Your task to perform on an android device: Open Chrome and go to the settings page Image 0: 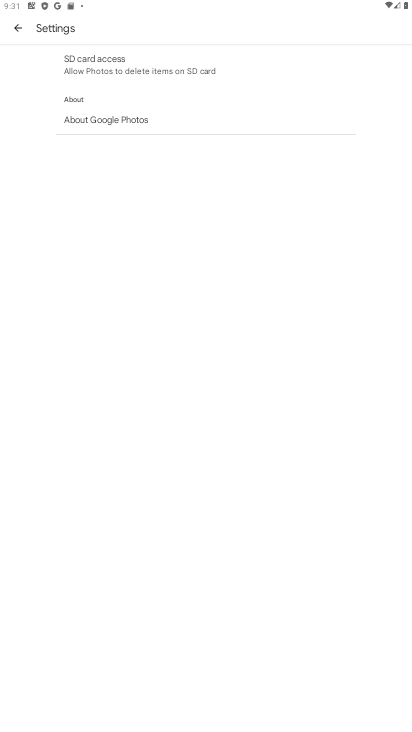
Step 0: click (81, 153)
Your task to perform on an android device: Open Chrome and go to the settings page Image 1: 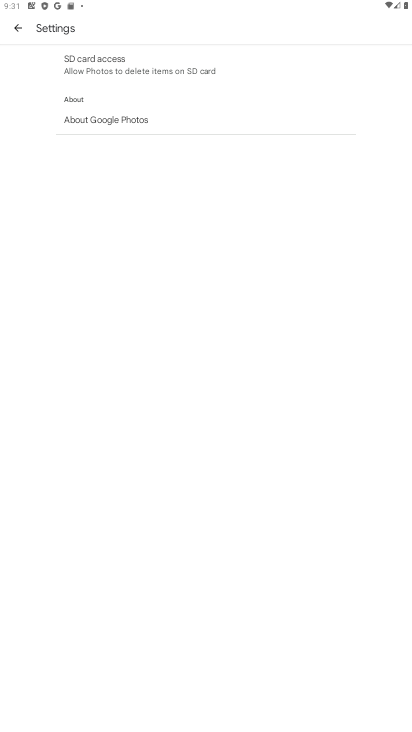
Step 1: click (81, 153)
Your task to perform on an android device: Open Chrome and go to the settings page Image 2: 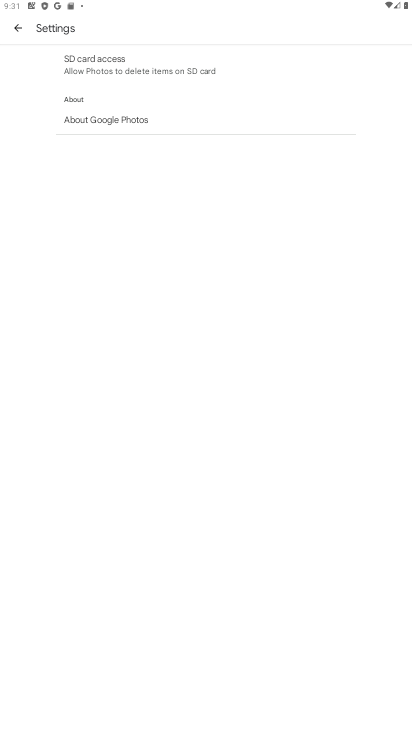
Step 2: click (81, 153)
Your task to perform on an android device: Open Chrome and go to the settings page Image 3: 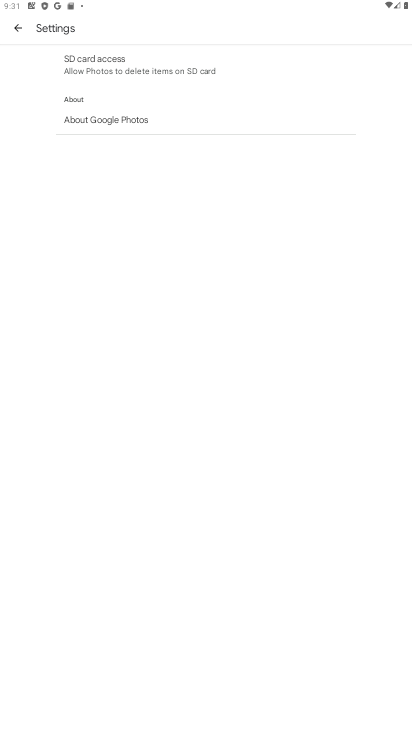
Step 3: task complete